Your task to perform on an android device: Open location settings Image 0: 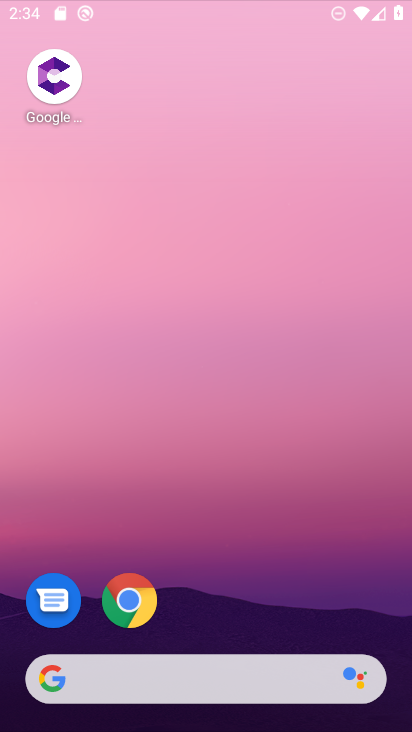
Step 0: click (181, 86)
Your task to perform on an android device: Open location settings Image 1: 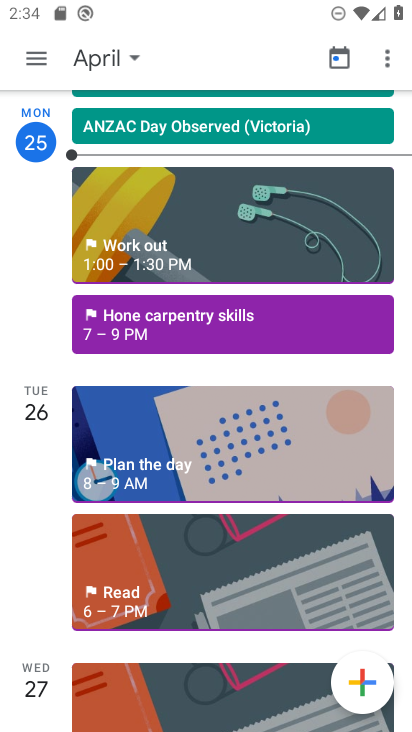
Step 1: press home button
Your task to perform on an android device: Open location settings Image 2: 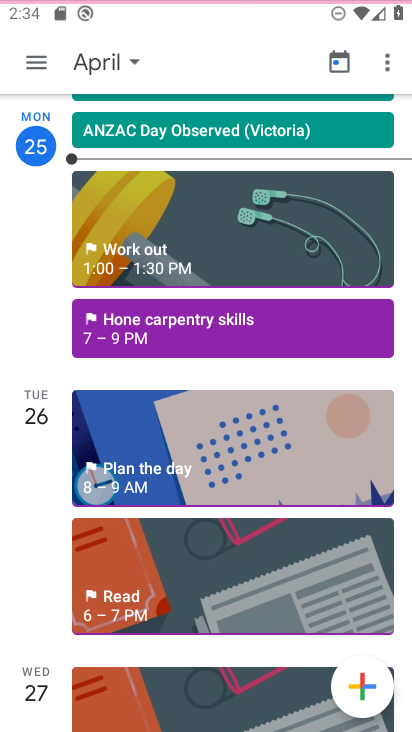
Step 2: press home button
Your task to perform on an android device: Open location settings Image 3: 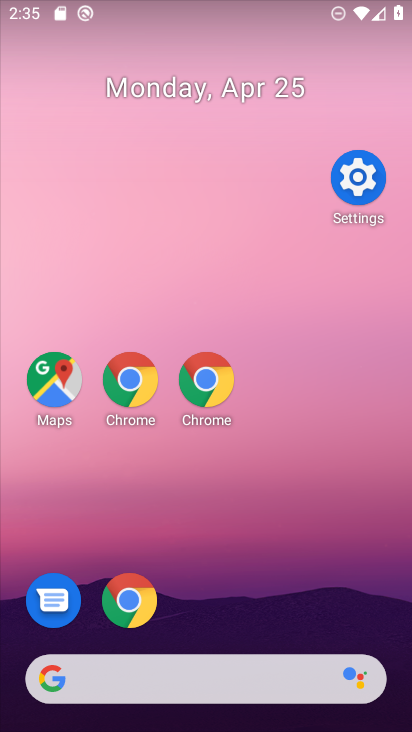
Step 3: drag from (283, 678) to (171, 98)
Your task to perform on an android device: Open location settings Image 4: 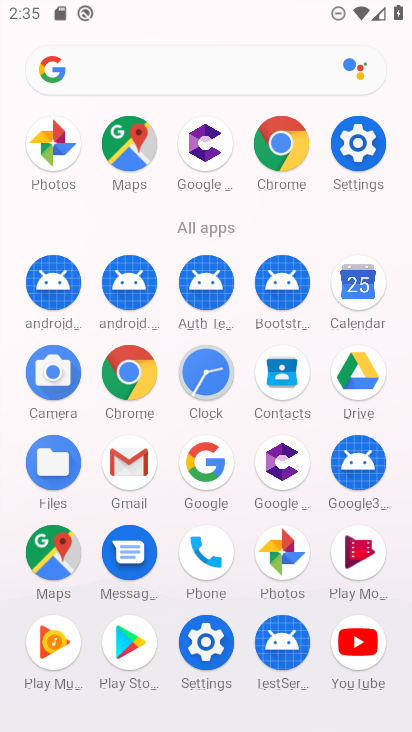
Step 4: drag from (360, 149) to (372, 264)
Your task to perform on an android device: Open location settings Image 5: 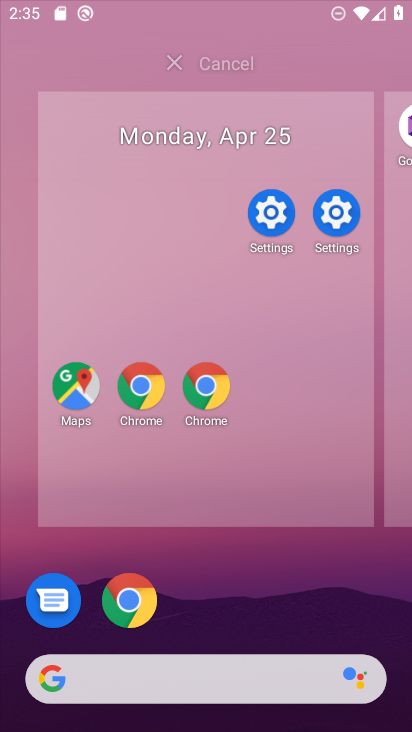
Step 5: click (358, 155)
Your task to perform on an android device: Open location settings Image 6: 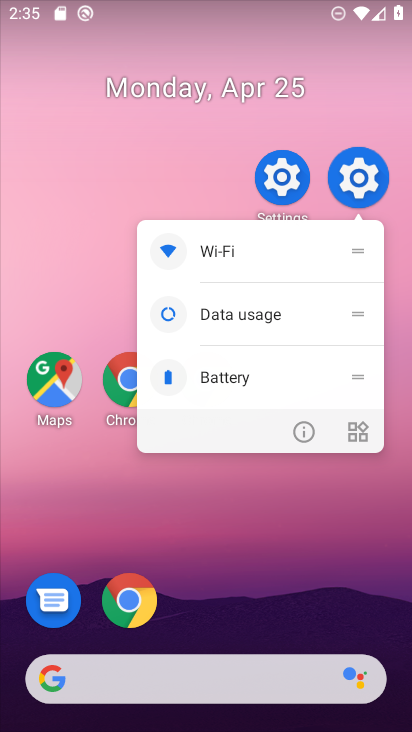
Step 6: drag from (333, 726) to (164, 30)
Your task to perform on an android device: Open location settings Image 7: 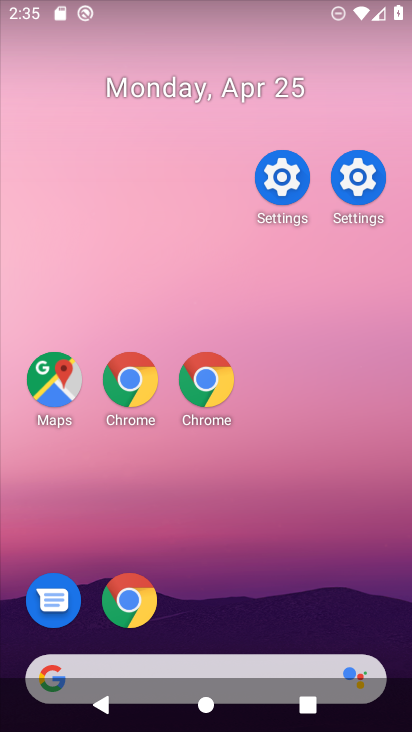
Step 7: drag from (333, 615) to (27, 0)
Your task to perform on an android device: Open location settings Image 8: 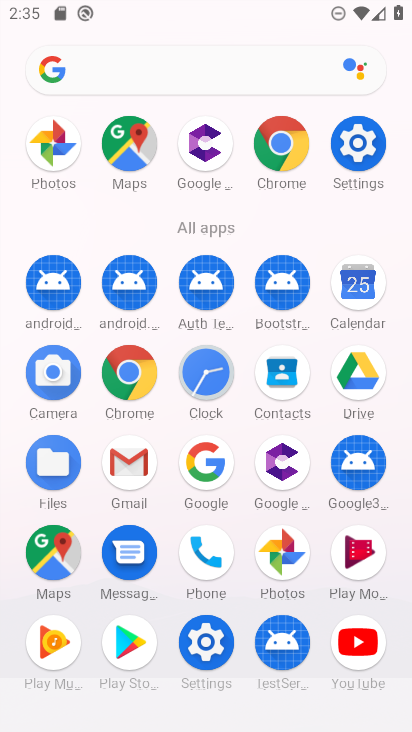
Step 8: drag from (295, 613) to (65, 14)
Your task to perform on an android device: Open location settings Image 9: 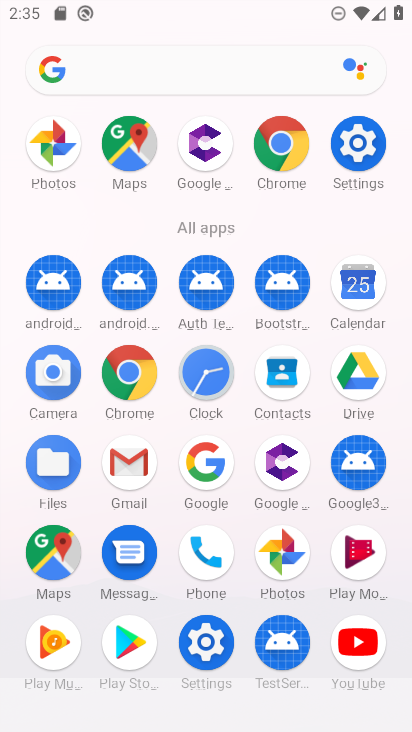
Step 9: click (356, 136)
Your task to perform on an android device: Open location settings Image 10: 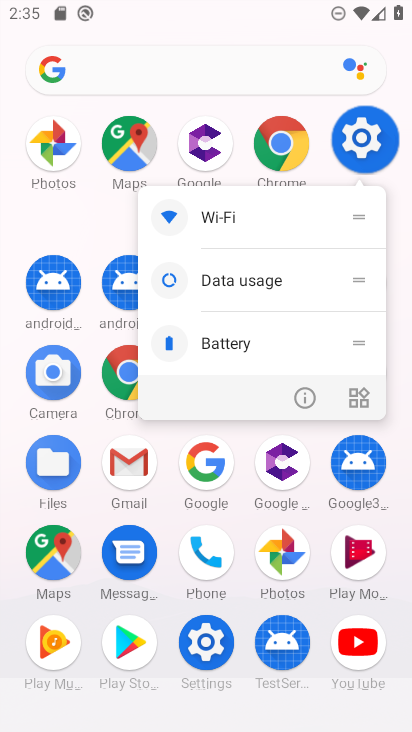
Step 10: click (356, 129)
Your task to perform on an android device: Open location settings Image 11: 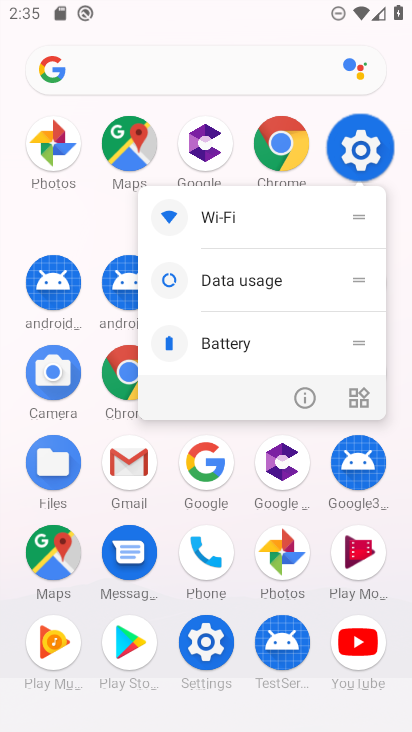
Step 11: click (342, 132)
Your task to perform on an android device: Open location settings Image 12: 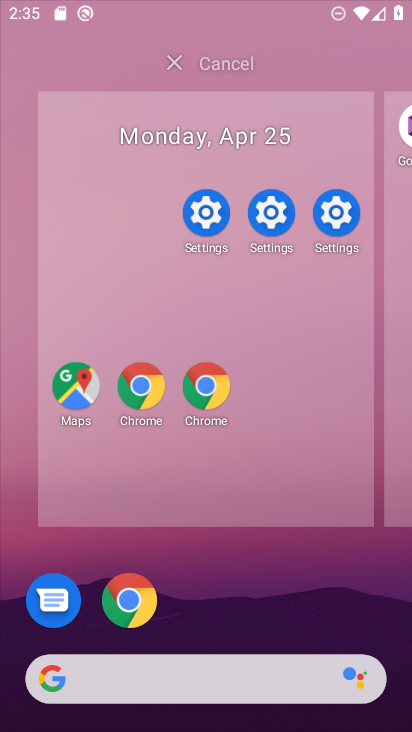
Step 12: click (357, 133)
Your task to perform on an android device: Open location settings Image 13: 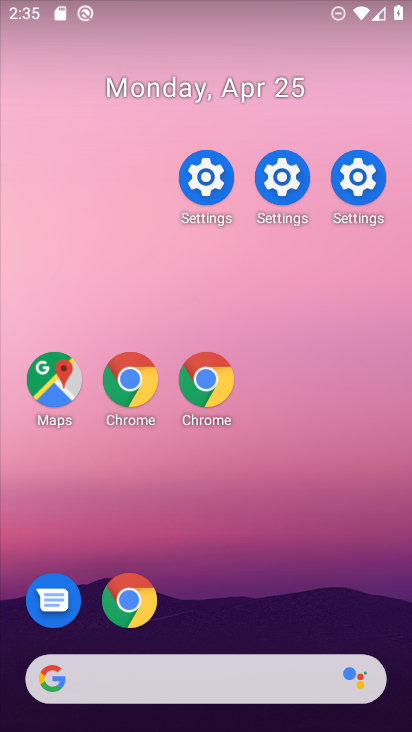
Step 13: drag from (368, 666) to (131, 11)
Your task to perform on an android device: Open location settings Image 14: 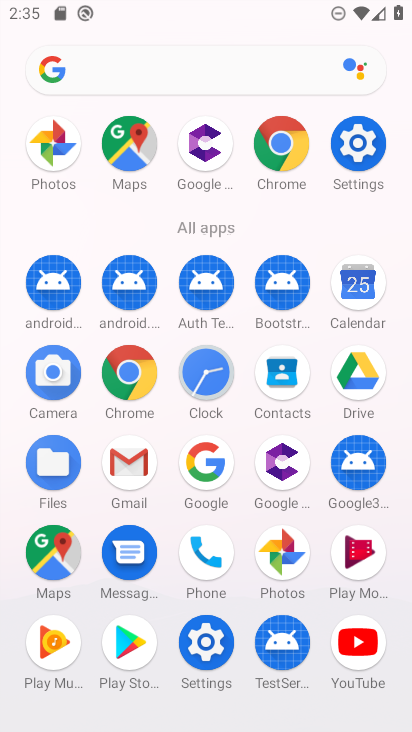
Step 14: click (352, 143)
Your task to perform on an android device: Open location settings Image 15: 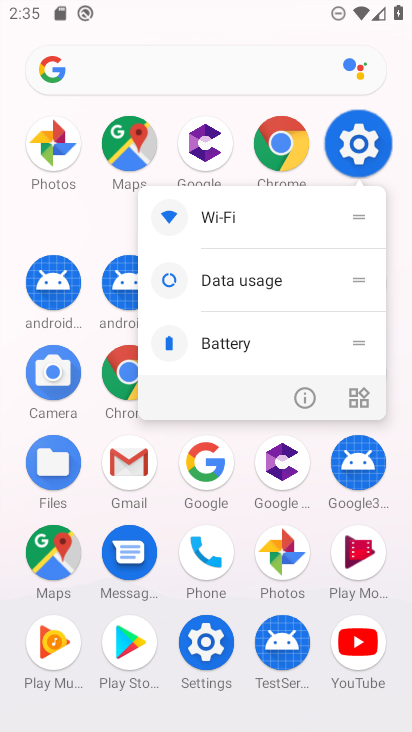
Step 15: click (354, 144)
Your task to perform on an android device: Open location settings Image 16: 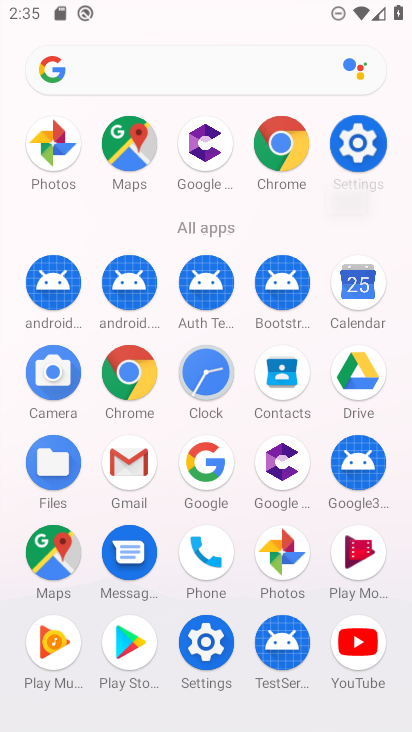
Step 16: click (354, 144)
Your task to perform on an android device: Open location settings Image 17: 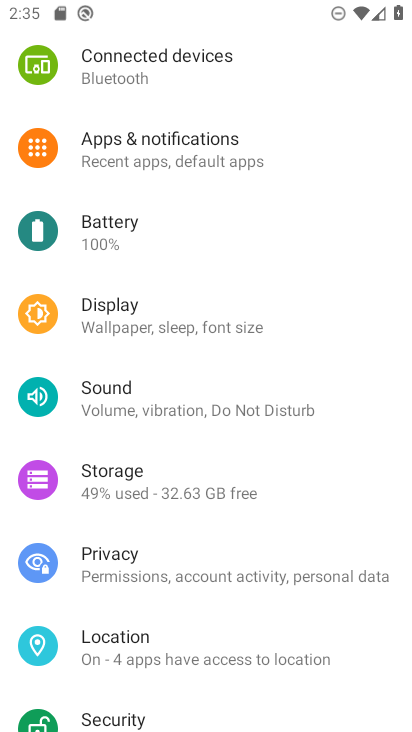
Step 17: click (129, 656)
Your task to perform on an android device: Open location settings Image 18: 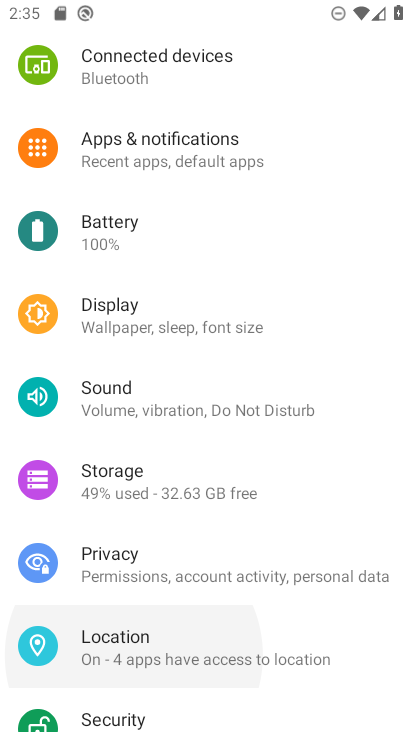
Step 18: click (144, 649)
Your task to perform on an android device: Open location settings Image 19: 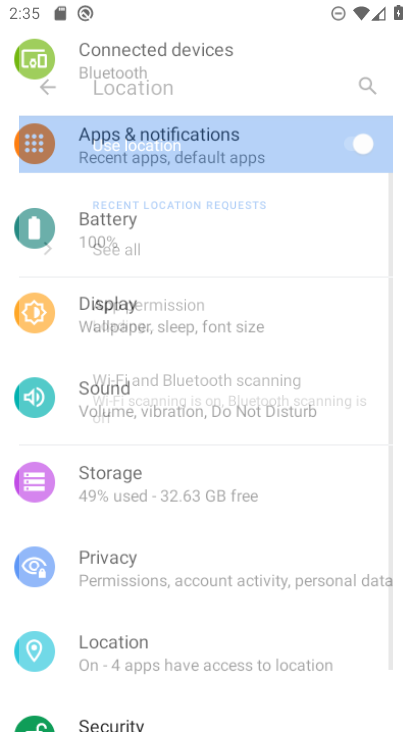
Step 19: click (144, 649)
Your task to perform on an android device: Open location settings Image 20: 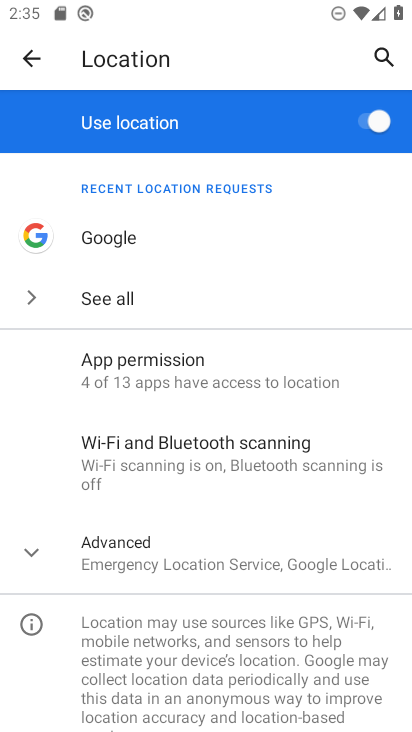
Step 20: click (372, 112)
Your task to perform on an android device: Open location settings Image 21: 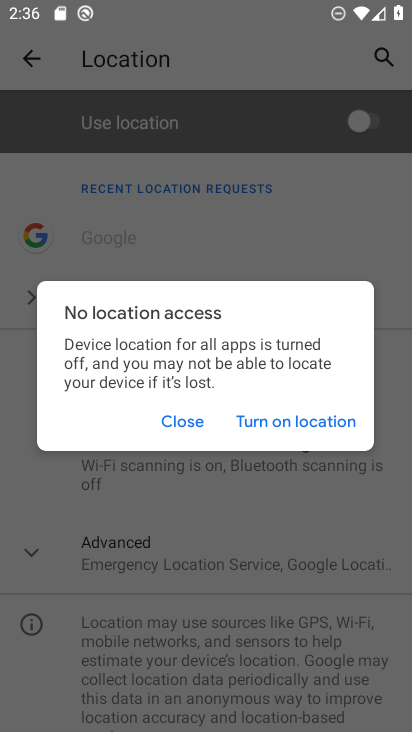
Step 21: click (175, 409)
Your task to perform on an android device: Open location settings Image 22: 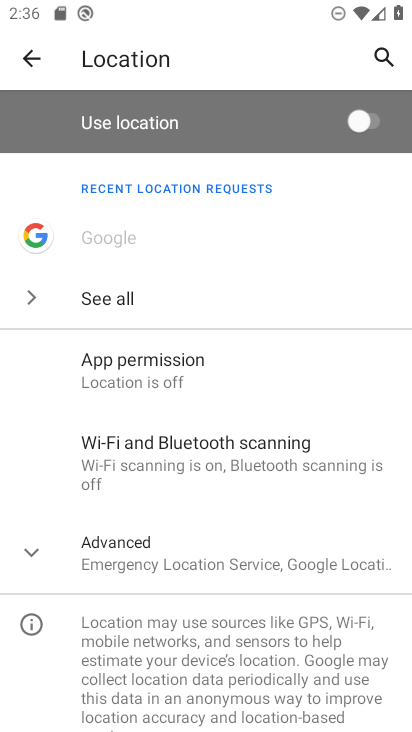
Step 22: press home button
Your task to perform on an android device: Open location settings Image 23: 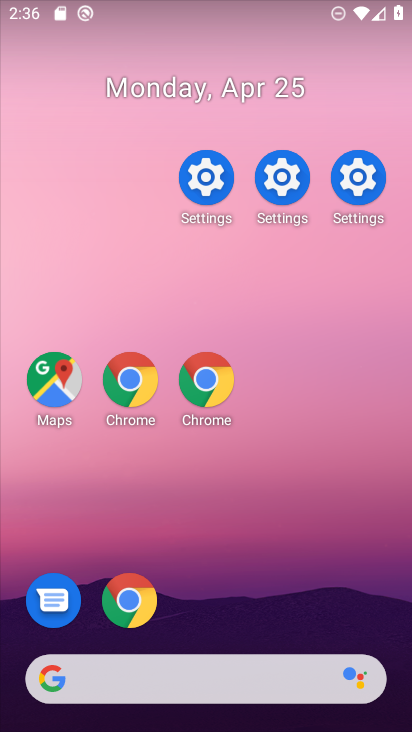
Step 23: drag from (278, 709) to (125, 88)
Your task to perform on an android device: Open location settings Image 24: 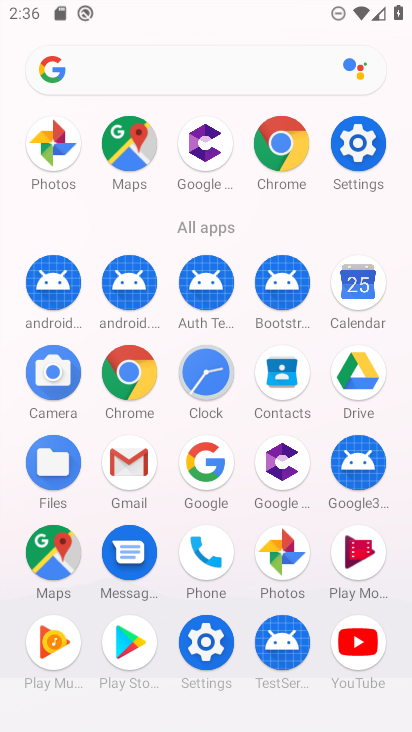
Step 24: click (358, 145)
Your task to perform on an android device: Open location settings Image 25: 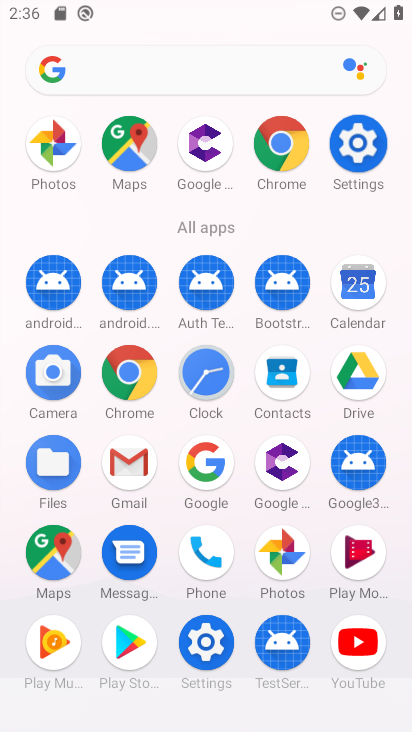
Step 25: click (358, 145)
Your task to perform on an android device: Open location settings Image 26: 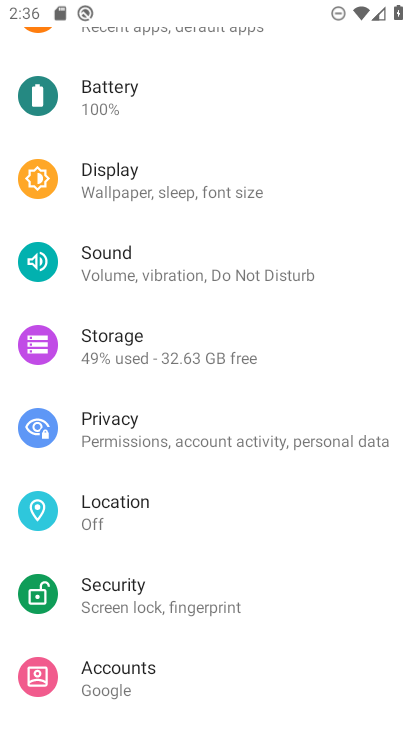
Step 26: click (358, 145)
Your task to perform on an android device: Open location settings Image 27: 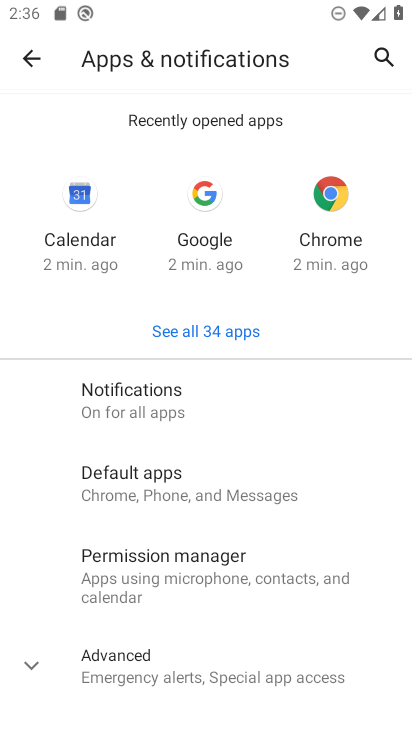
Step 27: click (30, 59)
Your task to perform on an android device: Open location settings Image 28: 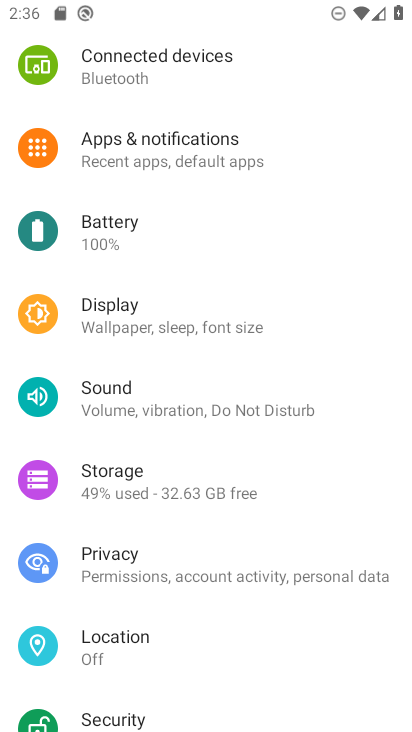
Step 28: click (126, 641)
Your task to perform on an android device: Open location settings Image 29: 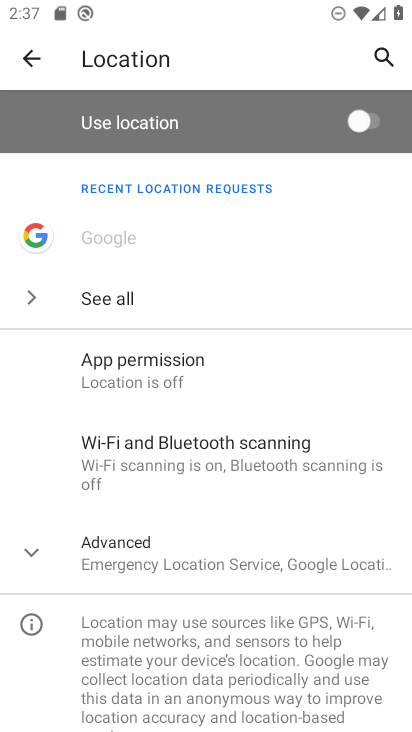
Step 29: click (356, 117)
Your task to perform on an android device: Open location settings Image 30: 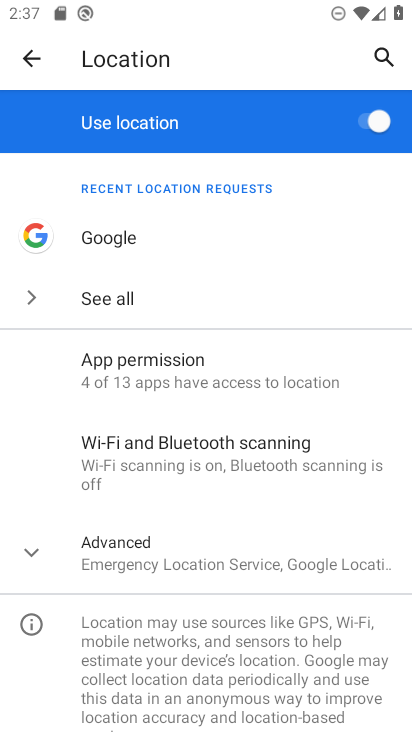
Step 30: task complete